Your task to perform on an android device: Is it going to rain today? Image 0: 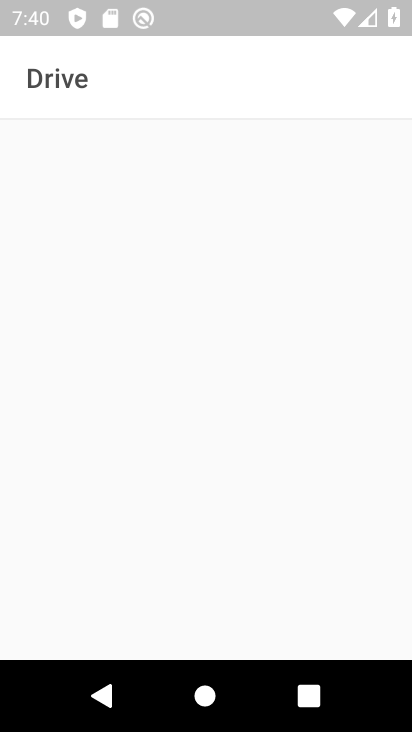
Step 0: press home button
Your task to perform on an android device: Is it going to rain today? Image 1: 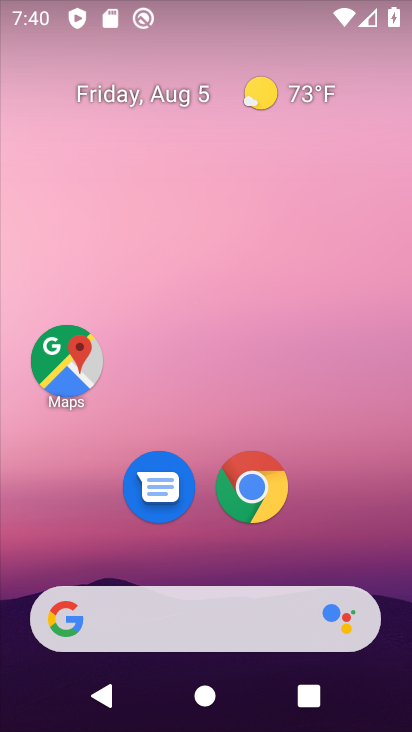
Step 1: click (168, 610)
Your task to perform on an android device: Is it going to rain today? Image 2: 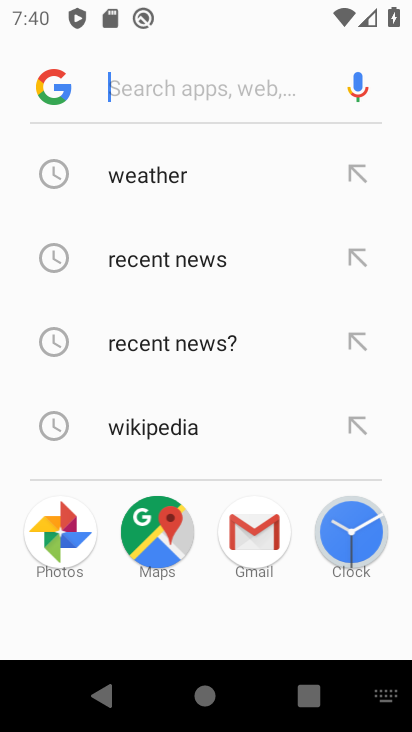
Step 2: click (167, 185)
Your task to perform on an android device: Is it going to rain today? Image 3: 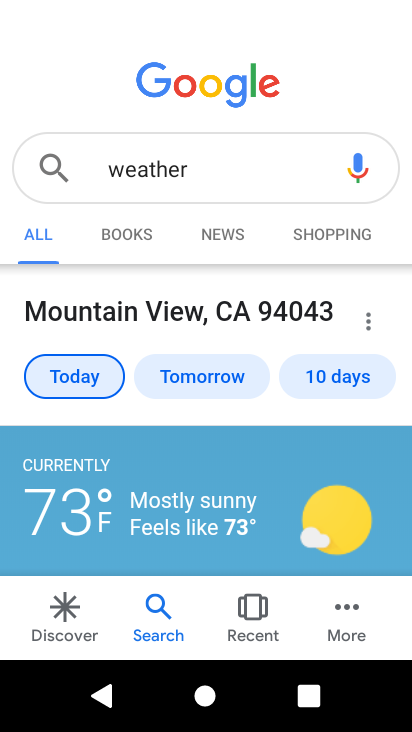
Step 3: task complete